Your task to perform on an android device: install app "Expedia: Hotels, Flights & Car" Image 0: 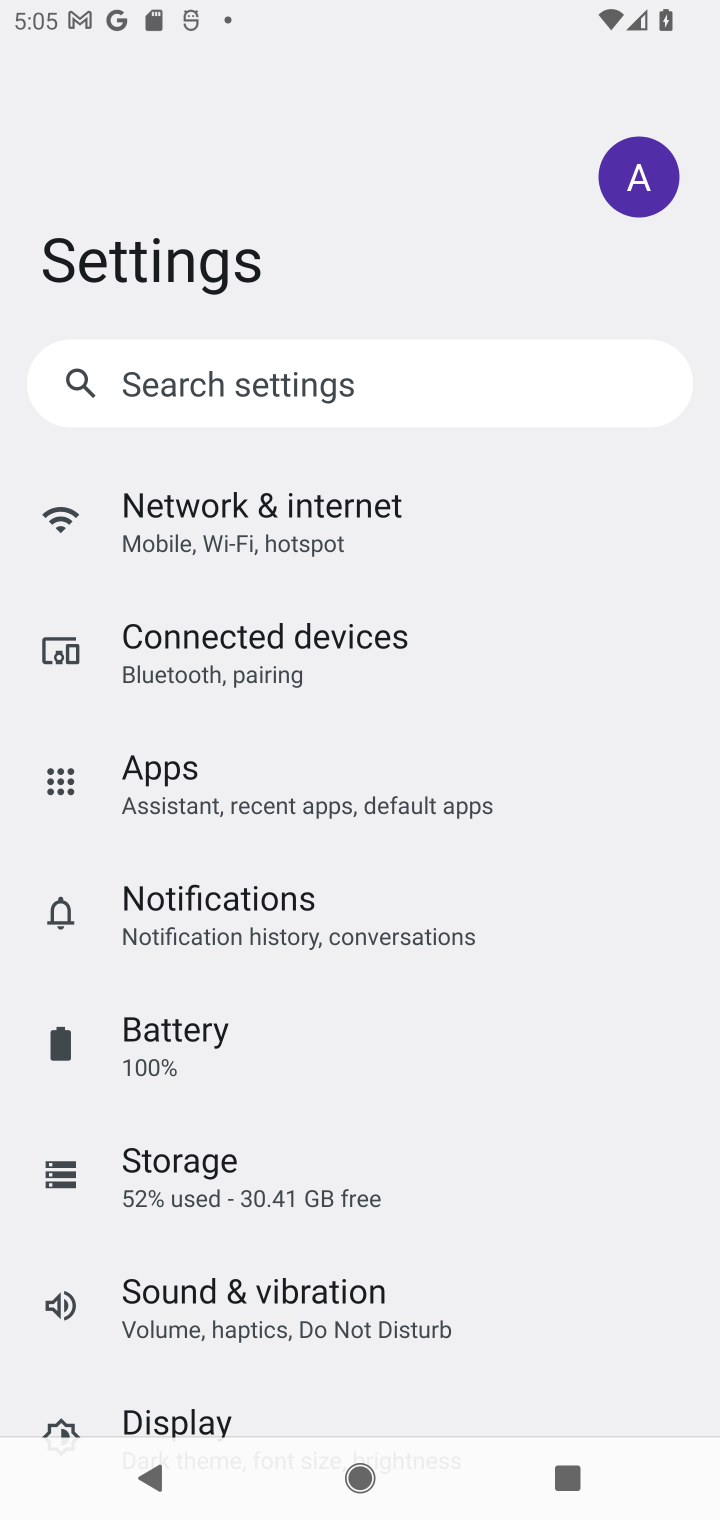
Step 0: press home button
Your task to perform on an android device: install app "Expedia: Hotels, Flights & Car" Image 1: 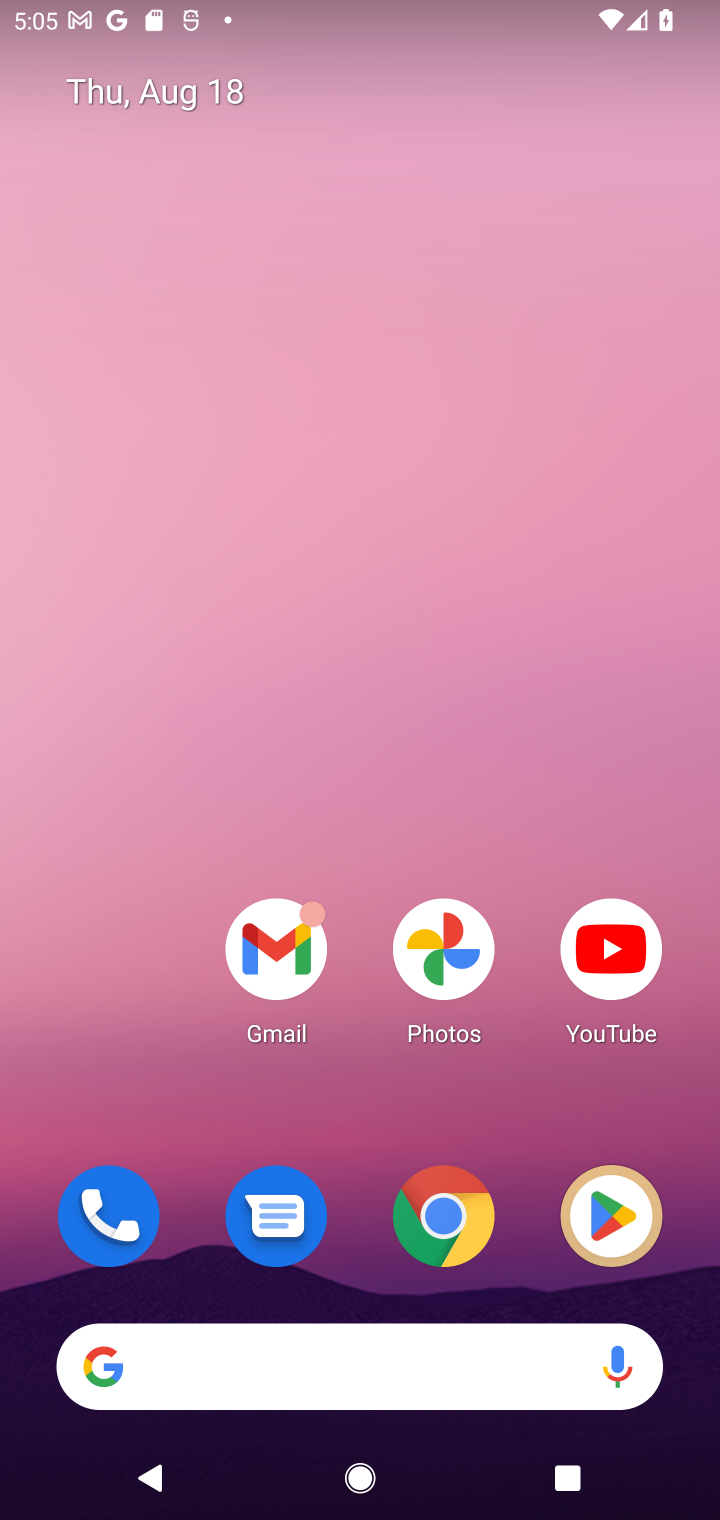
Step 1: click (615, 1216)
Your task to perform on an android device: install app "Expedia: Hotels, Flights & Car" Image 2: 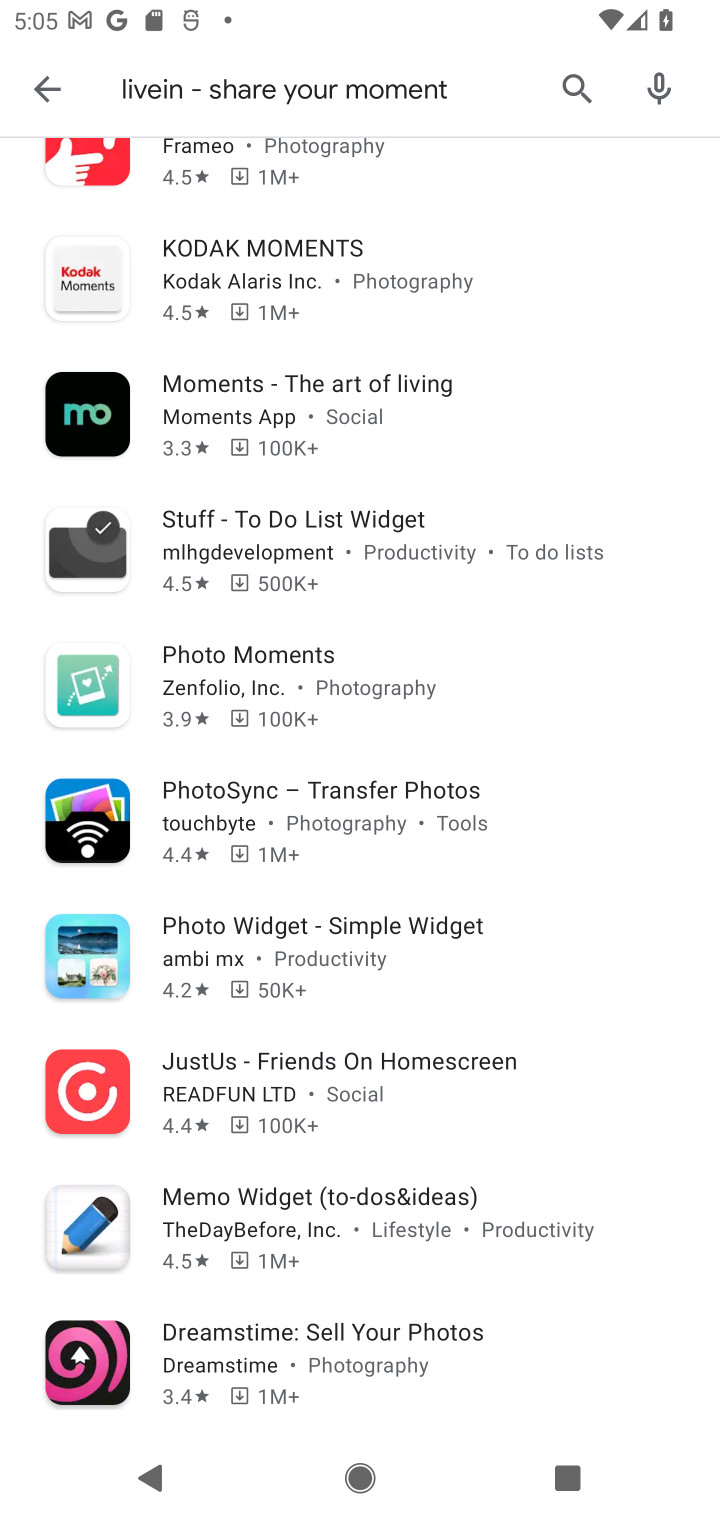
Step 2: click (570, 80)
Your task to perform on an android device: install app "Expedia: Hotels, Flights & Car" Image 3: 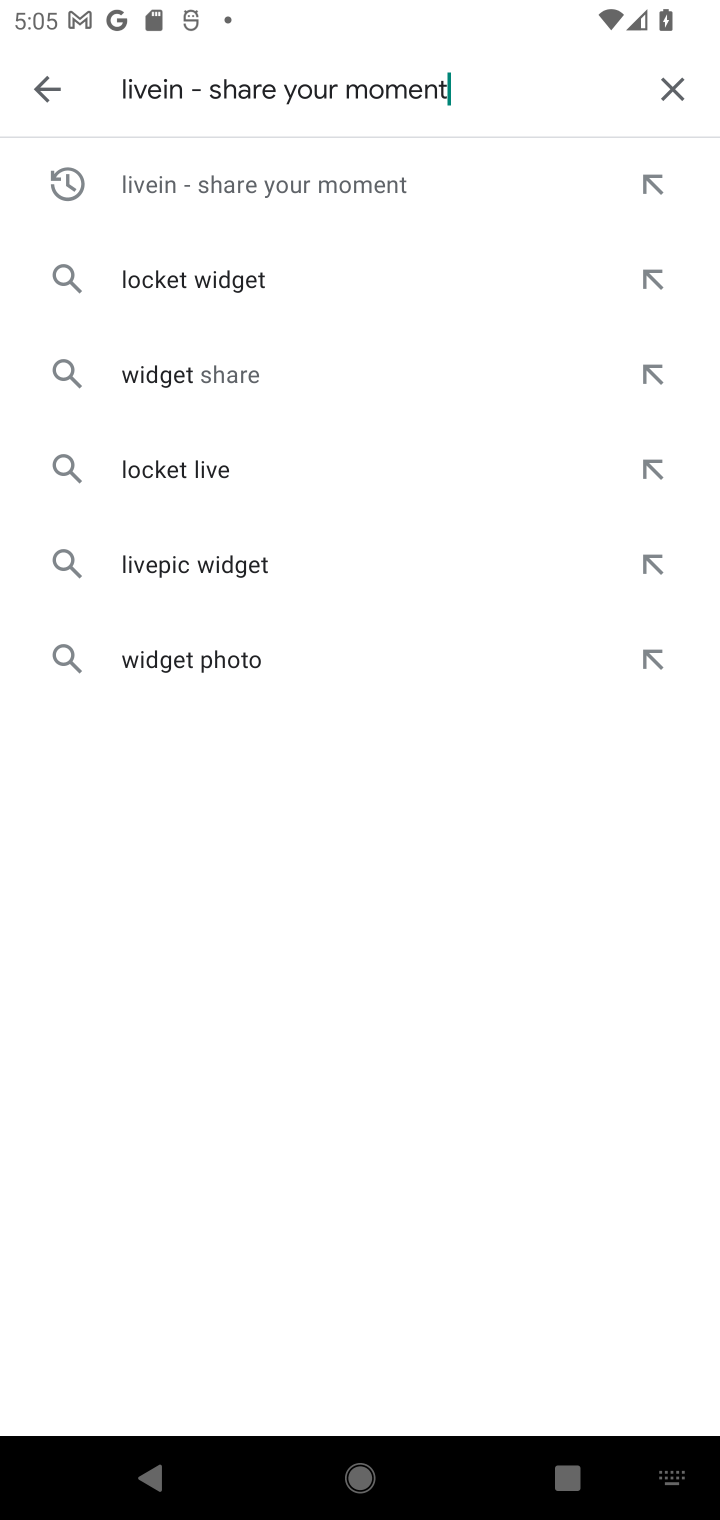
Step 3: click (663, 85)
Your task to perform on an android device: install app "Expedia: Hotels, Flights & Car" Image 4: 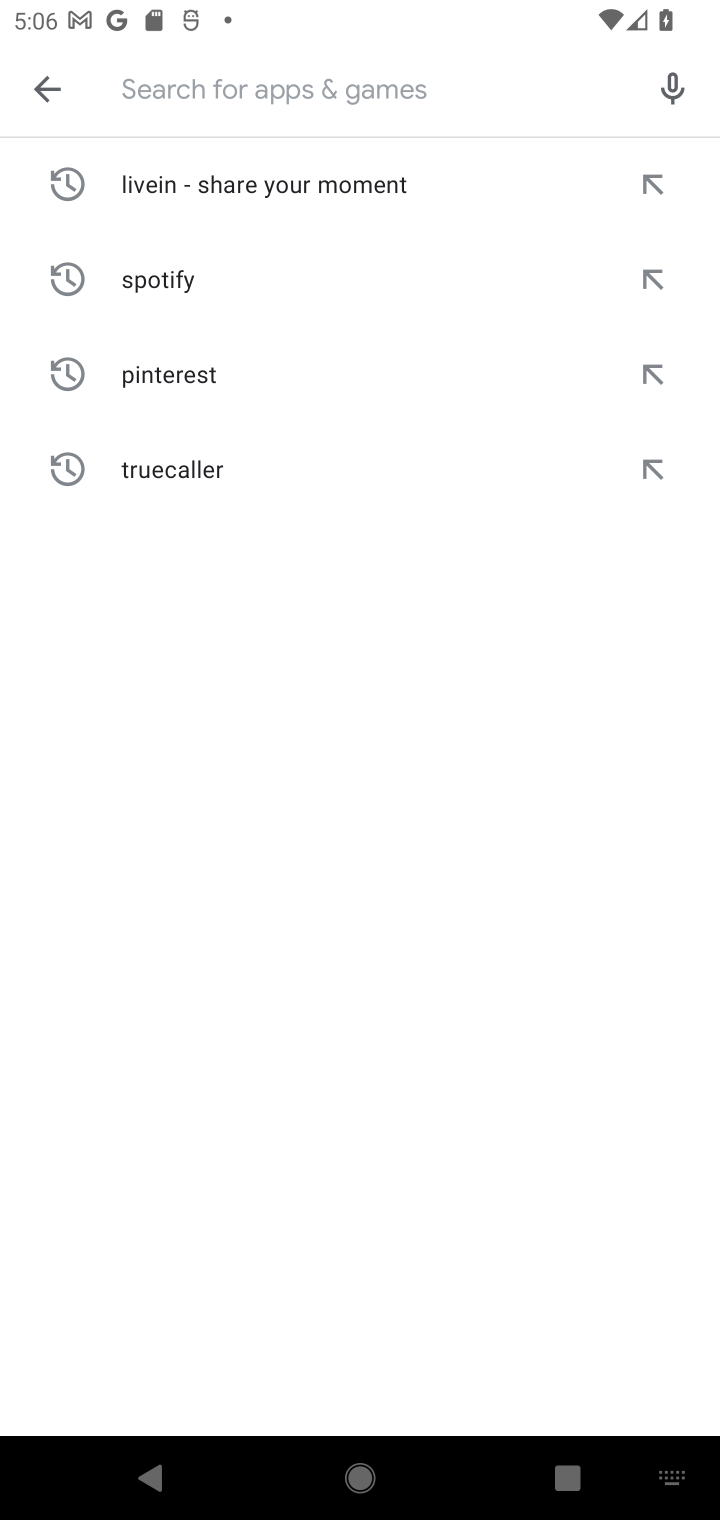
Step 4: type "Expedia: Hotels, Flights & Car"
Your task to perform on an android device: install app "Expedia: Hotels, Flights & Car" Image 5: 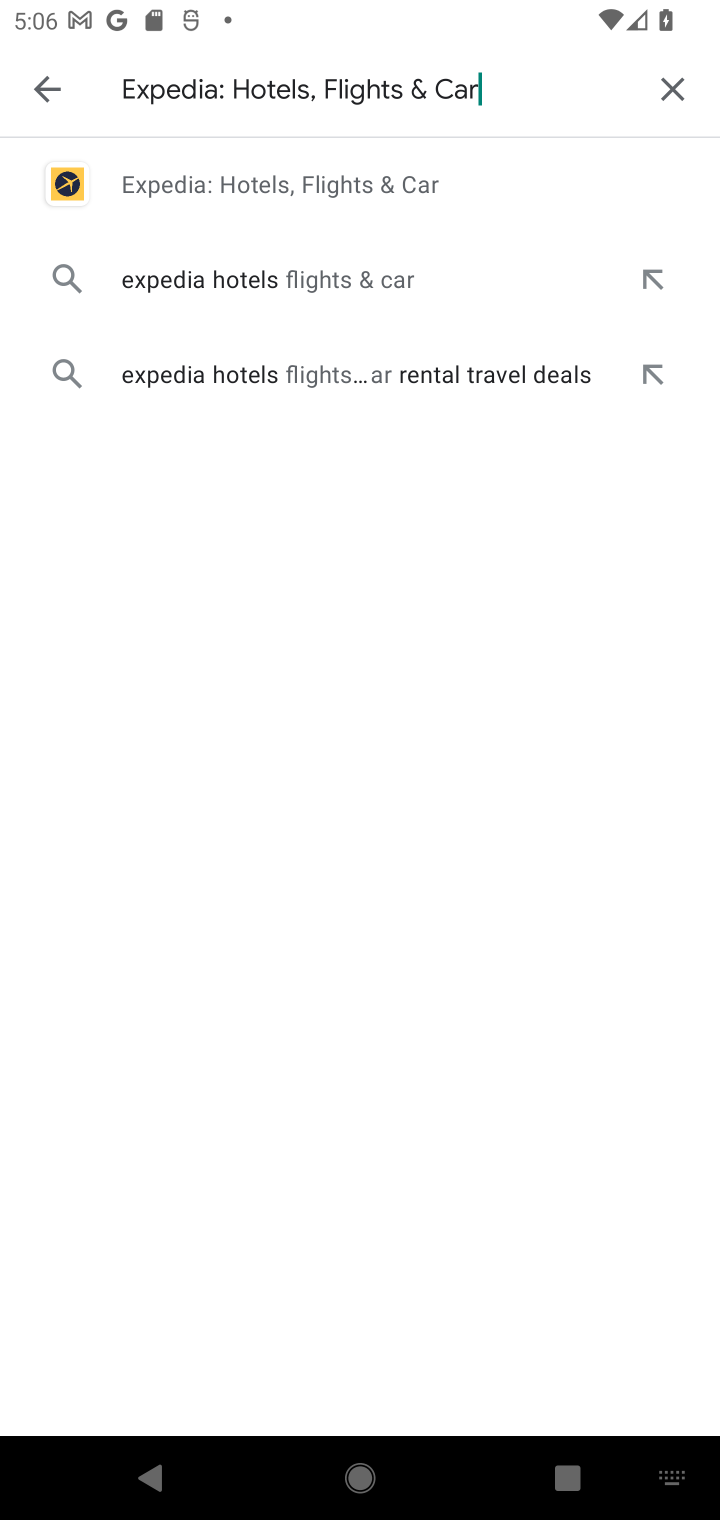
Step 5: click (221, 179)
Your task to perform on an android device: install app "Expedia: Hotels, Flights & Car" Image 6: 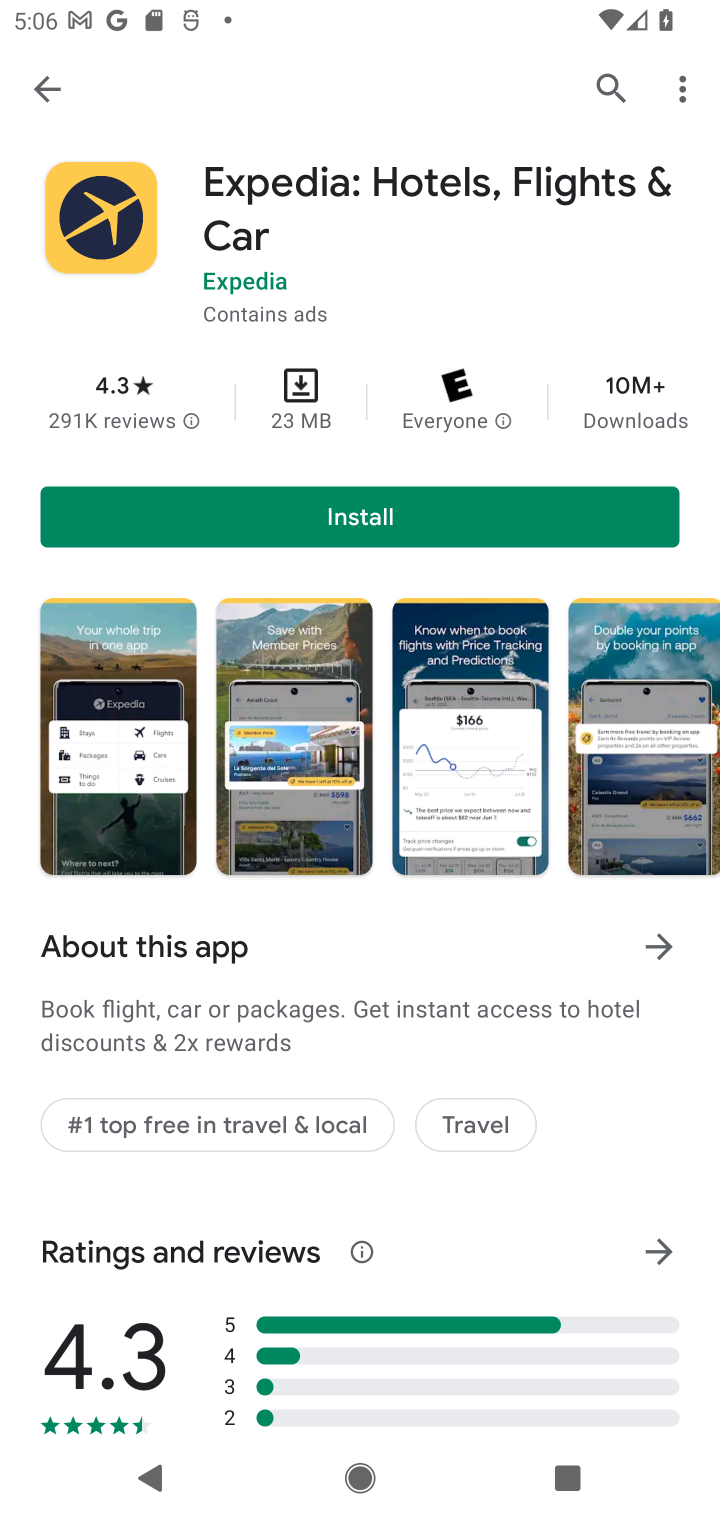
Step 6: click (354, 518)
Your task to perform on an android device: install app "Expedia: Hotels, Flights & Car" Image 7: 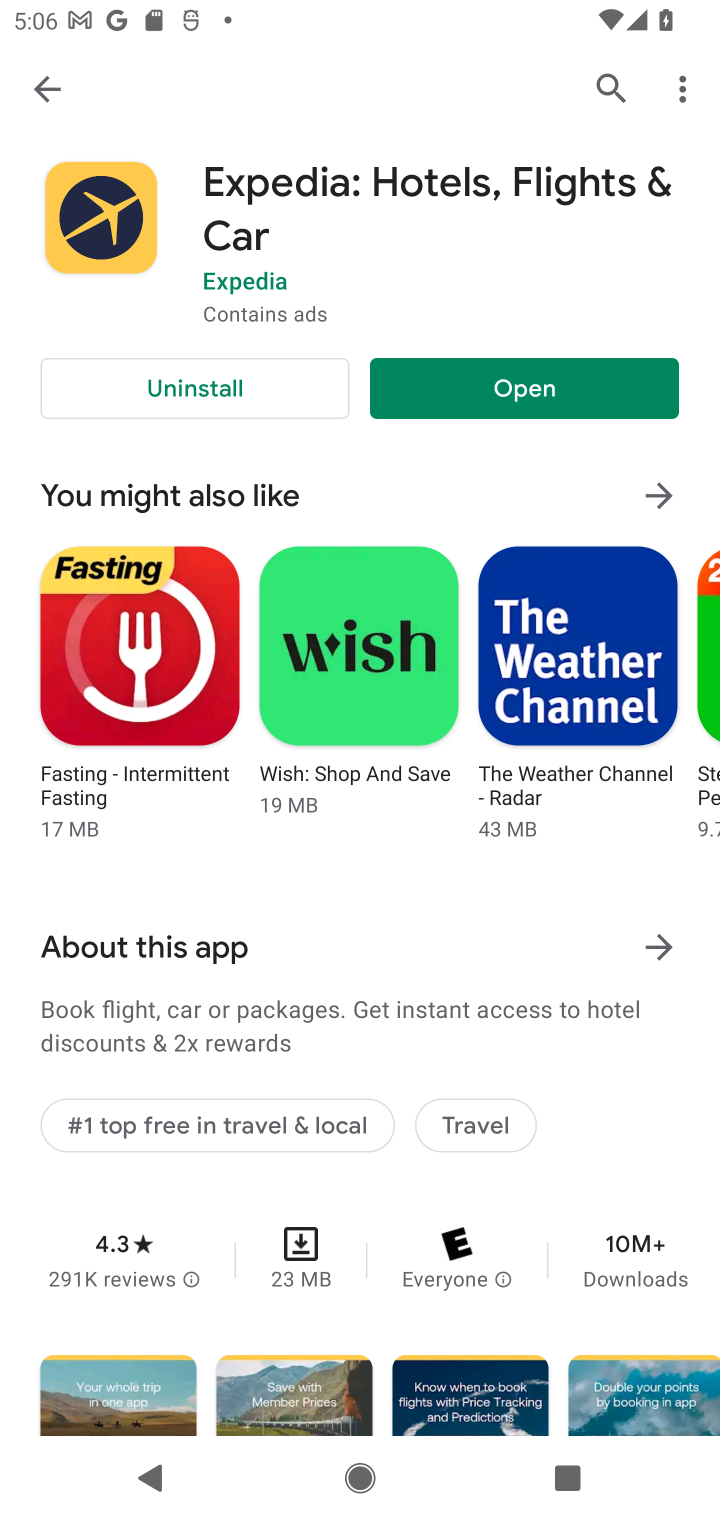
Step 7: task complete